Your task to perform on an android device: Open calendar and show me the second week of next month Image 0: 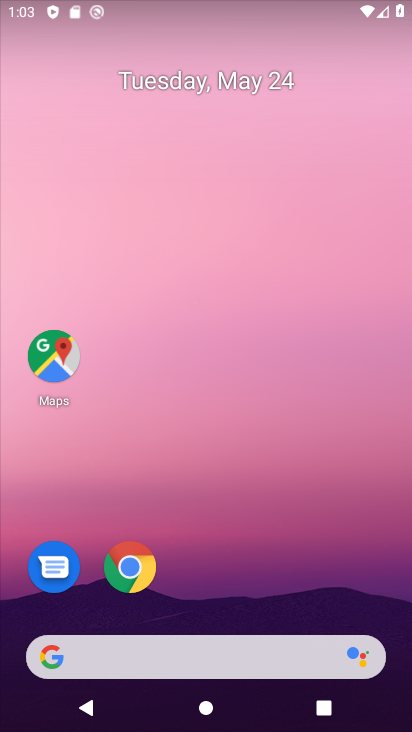
Step 0: drag from (194, 615) to (211, 146)
Your task to perform on an android device: Open calendar and show me the second week of next month Image 1: 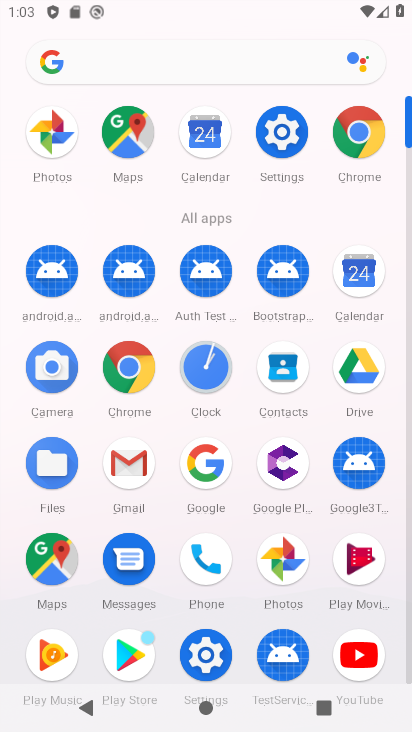
Step 1: click (365, 268)
Your task to perform on an android device: Open calendar and show me the second week of next month Image 2: 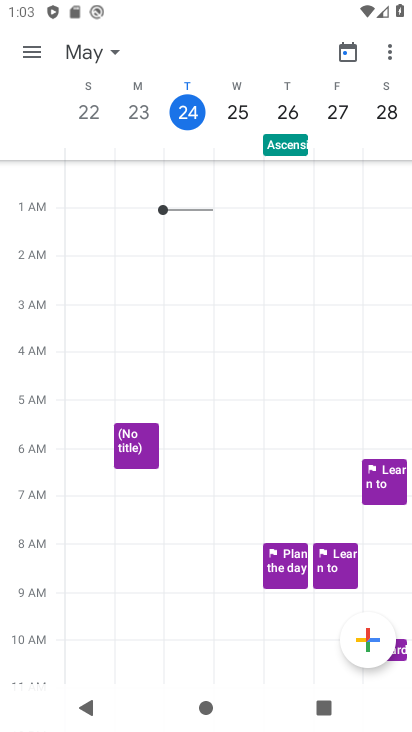
Step 2: task complete